Your task to perform on an android device: See recent photos Image 0: 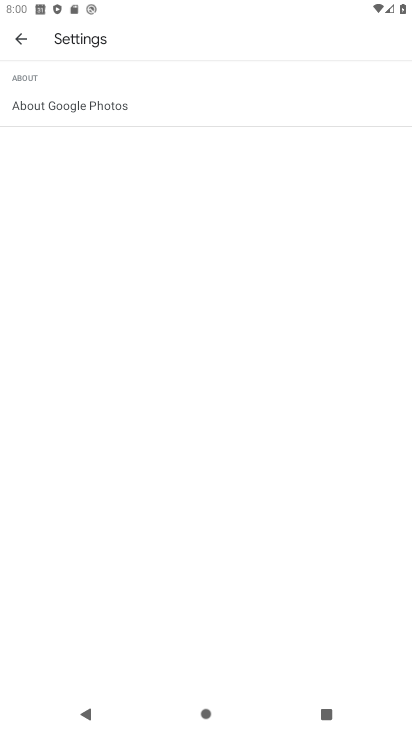
Step 0: press home button
Your task to perform on an android device: See recent photos Image 1: 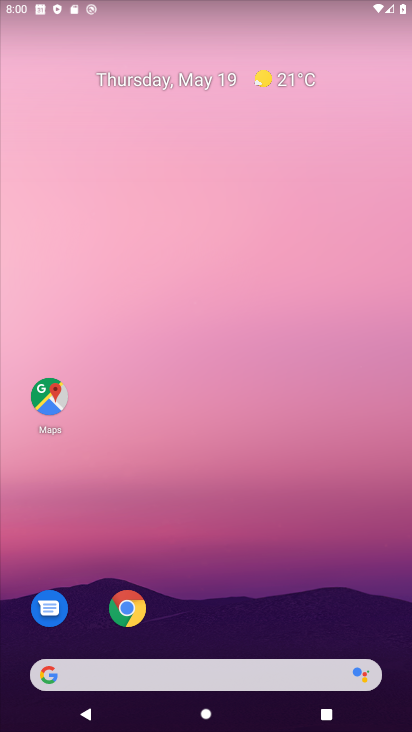
Step 1: drag from (243, 518) to (148, 32)
Your task to perform on an android device: See recent photos Image 2: 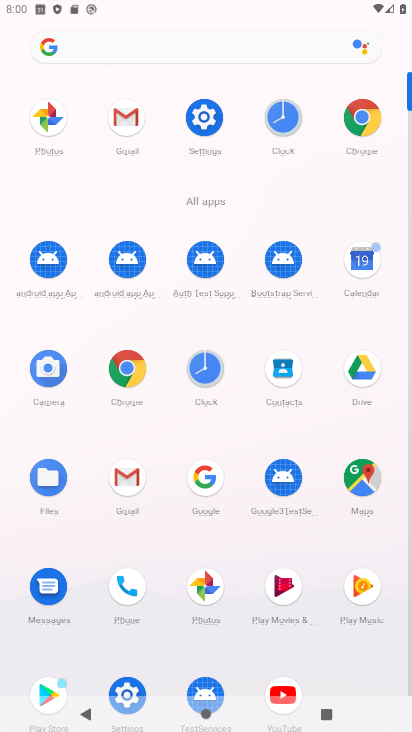
Step 2: click (51, 117)
Your task to perform on an android device: See recent photos Image 3: 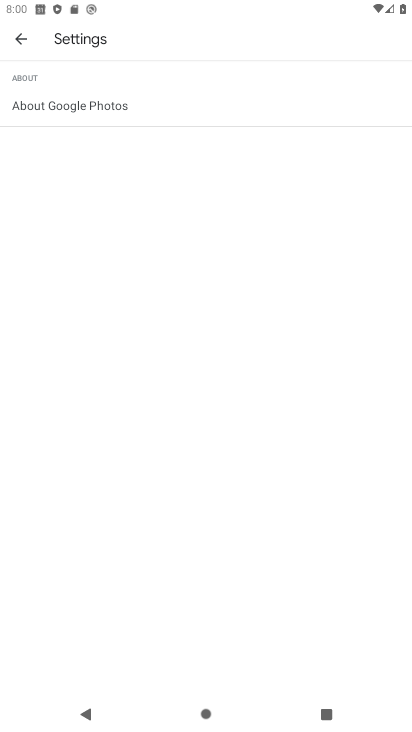
Step 3: click (16, 40)
Your task to perform on an android device: See recent photos Image 4: 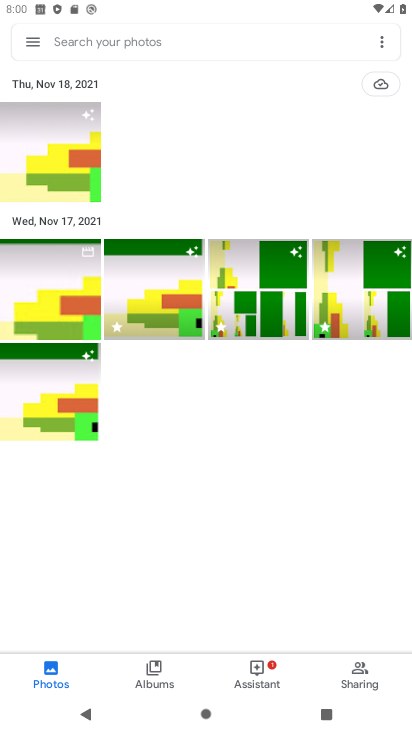
Step 4: task complete